Your task to perform on an android device: Open Google Maps Image 0: 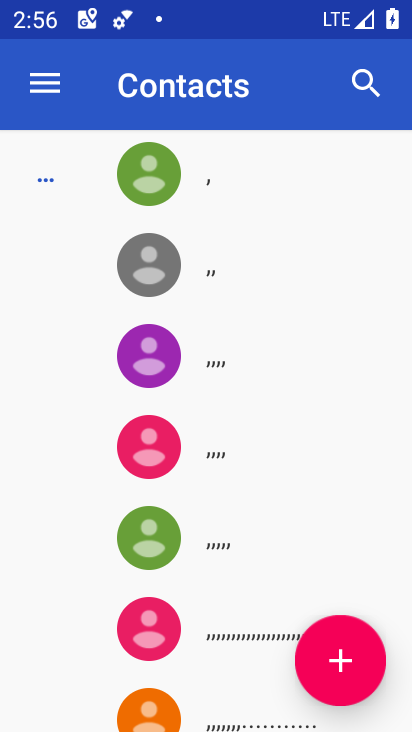
Step 0: press home button
Your task to perform on an android device: Open Google Maps Image 1: 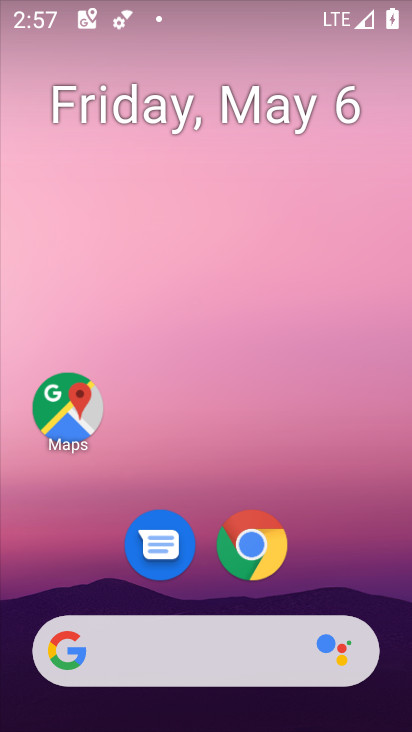
Step 1: click (53, 426)
Your task to perform on an android device: Open Google Maps Image 2: 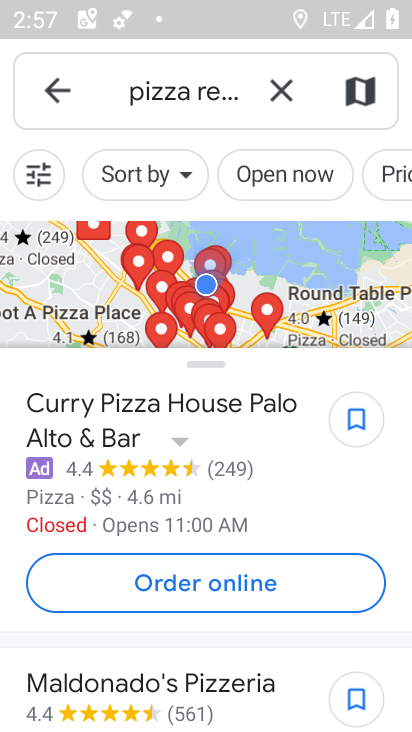
Step 2: task complete